Your task to perform on an android device: Open CNN.com Image 0: 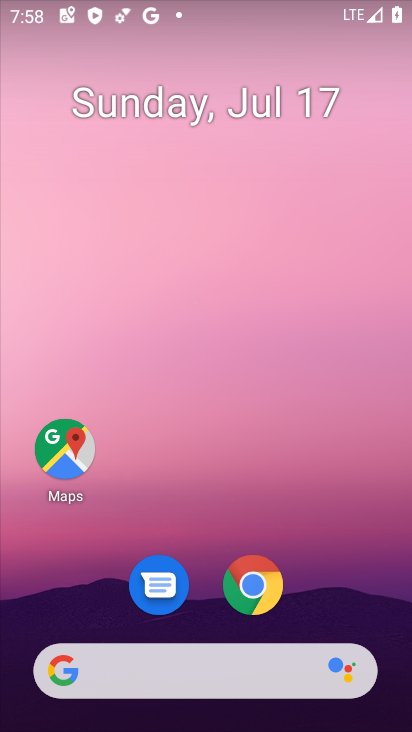
Step 0: click (245, 680)
Your task to perform on an android device: Open CNN.com Image 1: 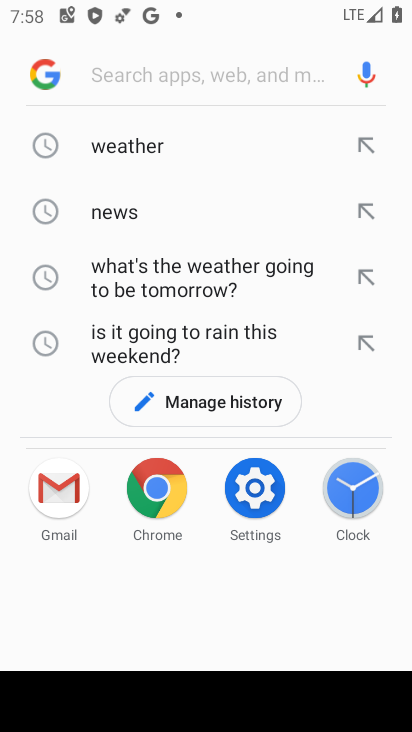
Step 1: type "cnn.com"
Your task to perform on an android device: Open CNN.com Image 2: 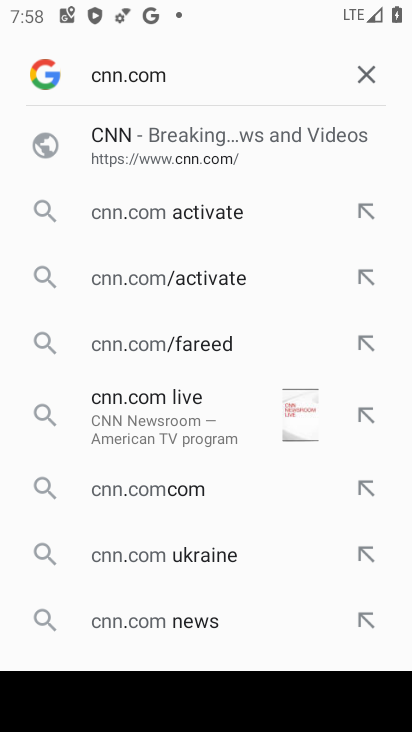
Step 2: click (105, 144)
Your task to perform on an android device: Open CNN.com Image 3: 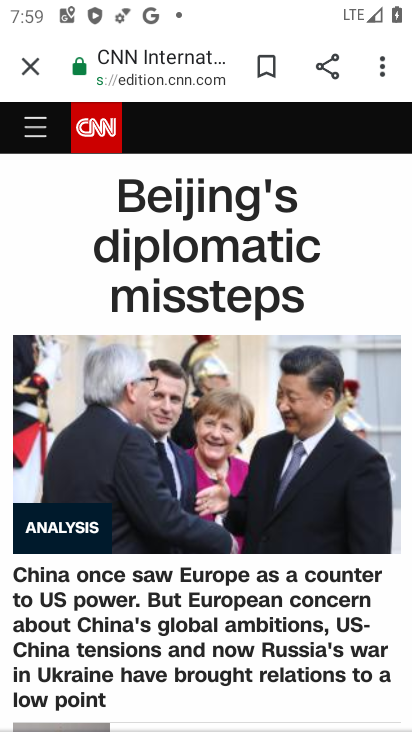
Step 3: task complete